Your task to perform on an android device: turn off location Image 0: 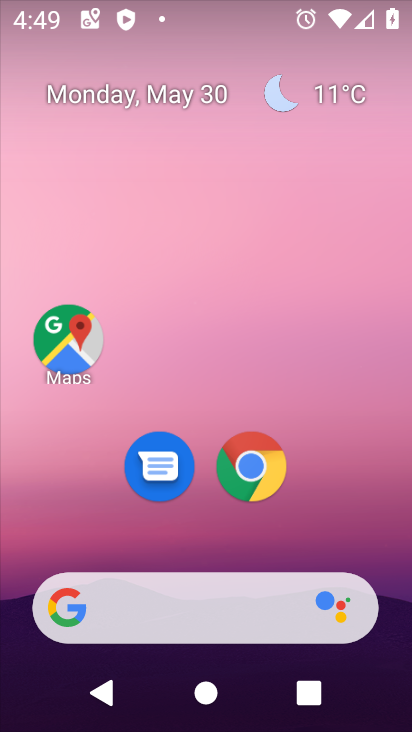
Step 0: drag from (329, 484) to (295, 93)
Your task to perform on an android device: turn off location Image 1: 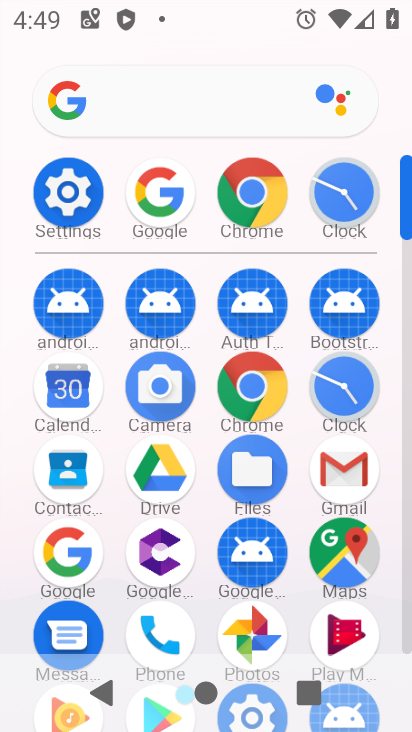
Step 1: click (82, 177)
Your task to perform on an android device: turn off location Image 2: 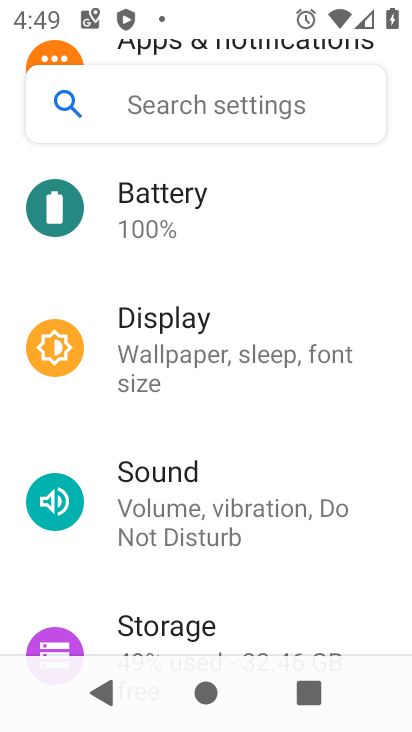
Step 2: drag from (295, 526) to (311, 98)
Your task to perform on an android device: turn off location Image 3: 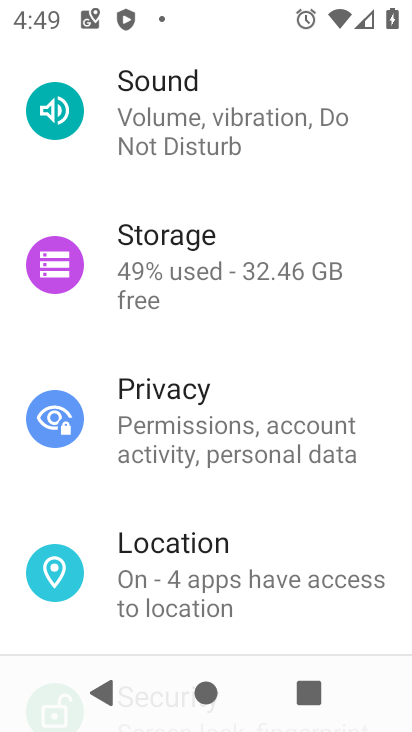
Step 3: click (229, 567)
Your task to perform on an android device: turn off location Image 4: 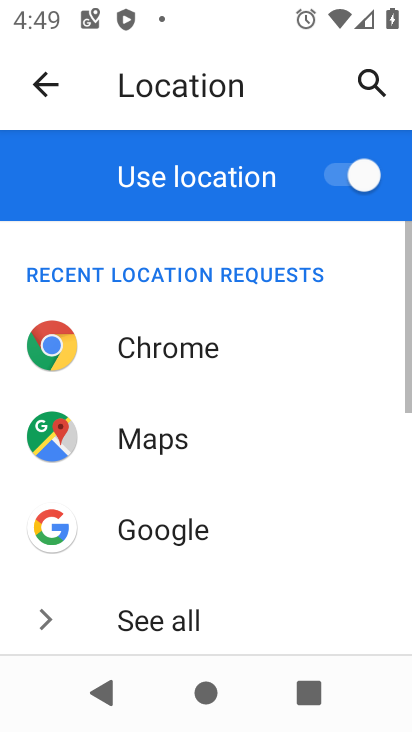
Step 4: click (336, 198)
Your task to perform on an android device: turn off location Image 5: 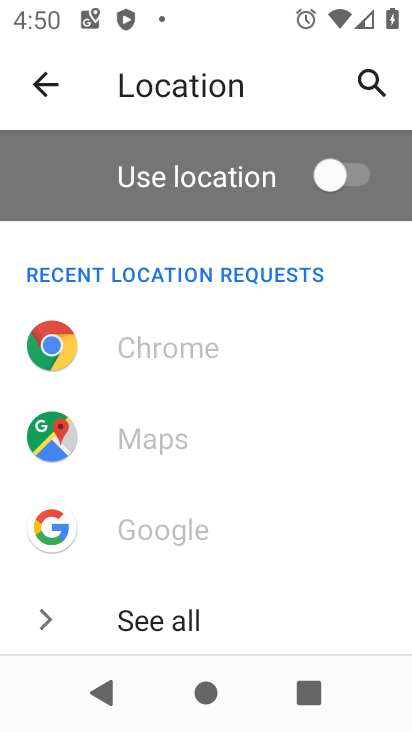
Step 5: task complete